Your task to perform on an android device: Open calendar and show me the second week of next month Image 0: 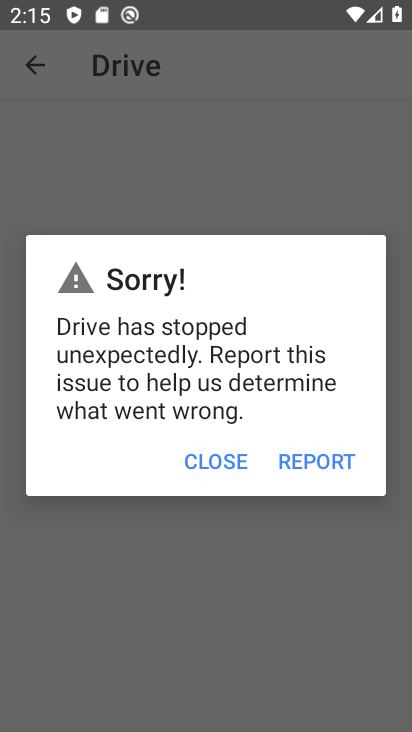
Step 0: press home button
Your task to perform on an android device: Open calendar and show me the second week of next month Image 1: 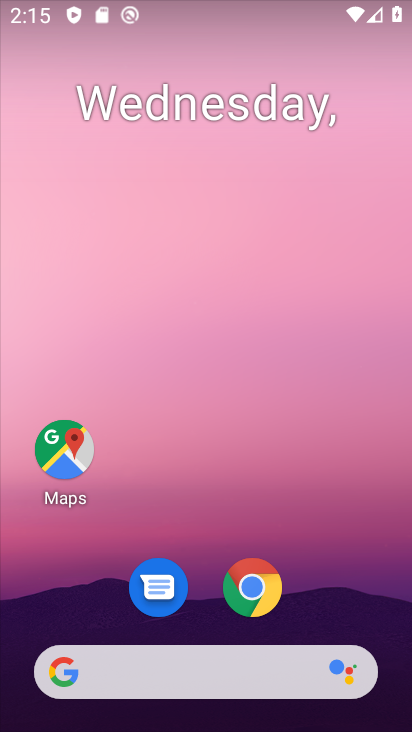
Step 1: drag from (345, 605) to (289, 165)
Your task to perform on an android device: Open calendar and show me the second week of next month Image 2: 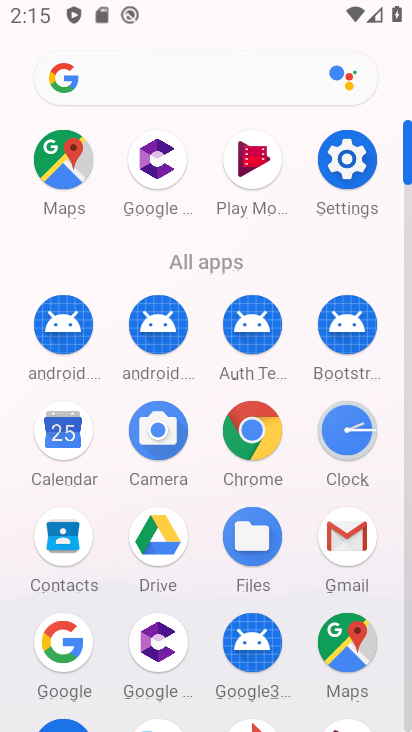
Step 2: click (62, 450)
Your task to perform on an android device: Open calendar and show me the second week of next month Image 3: 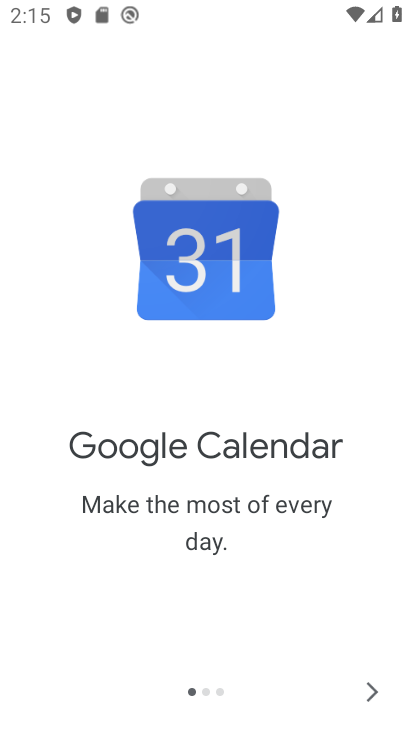
Step 3: click (373, 682)
Your task to perform on an android device: Open calendar and show me the second week of next month Image 4: 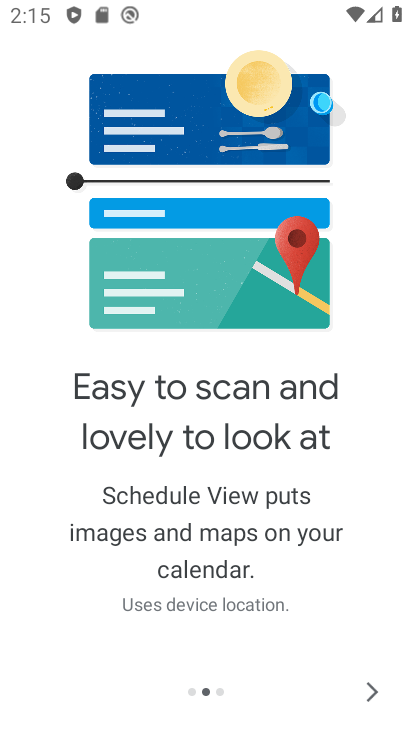
Step 4: click (373, 682)
Your task to perform on an android device: Open calendar and show me the second week of next month Image 5: 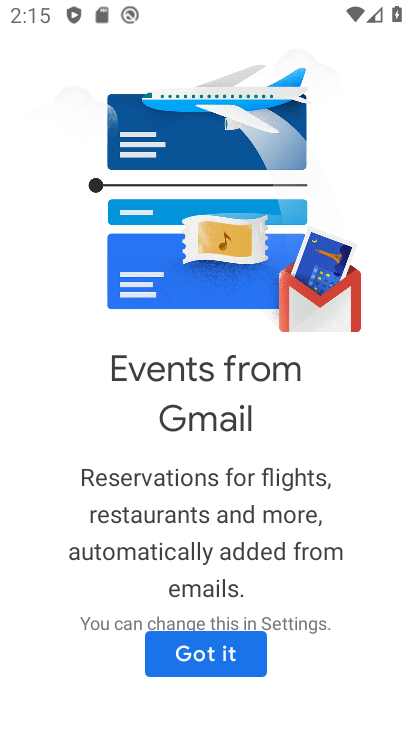
Step 5: click (223, 658)
Your task to perform on an android device: Open calendar and show me the second week of next month Image 6: 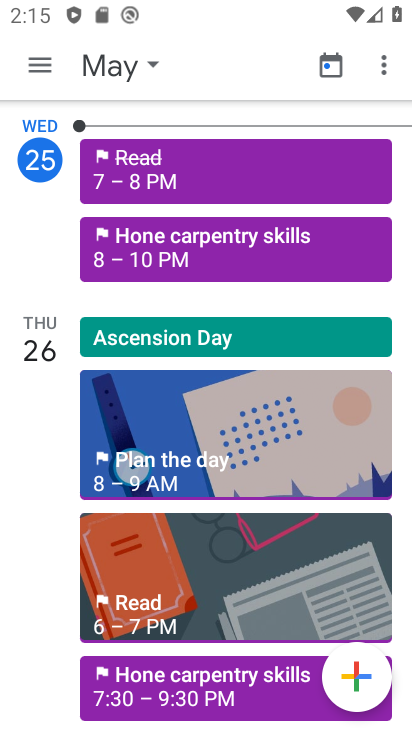
Step 6: click (112, 71)
Your task to perform on an android device: Open calendar and show me the second week of next month Image 7: 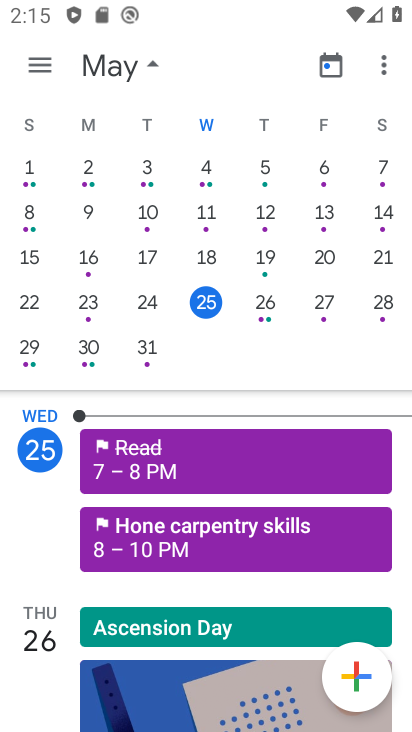
Step 7: drag from (390, 240) to (0, 163)
Your task to perform on an android device: Open calendar and show me the second week of next month Image 8: 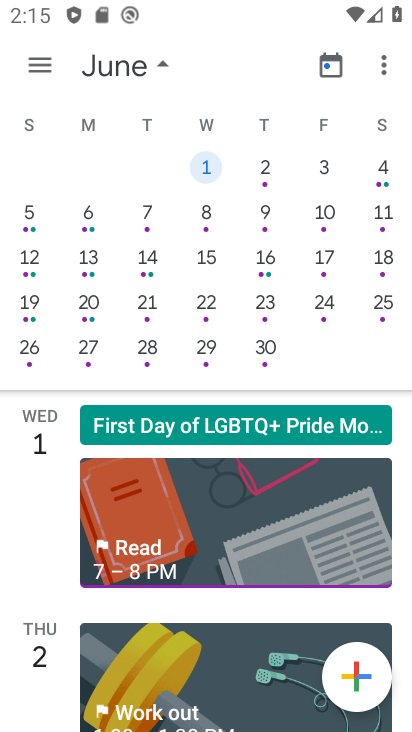
Step 8: click (203, 207)
Your task to perform on an android device: Open calendar and show me the second week of next month Image 9: 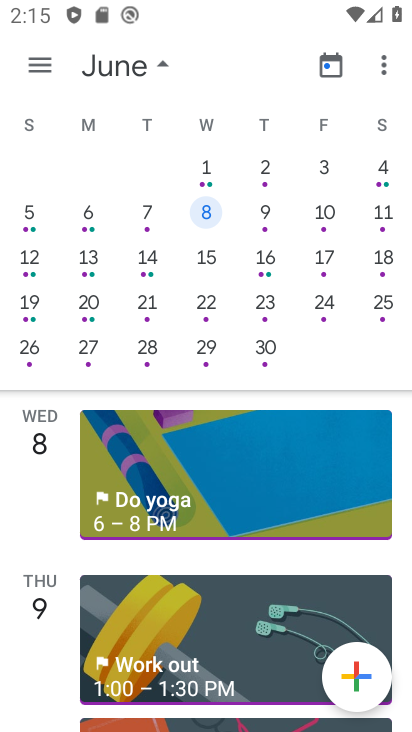
Step 9: click (145, 70)
Your task to perform on an android device: Open calendar and show me the second week of next month Image 10: 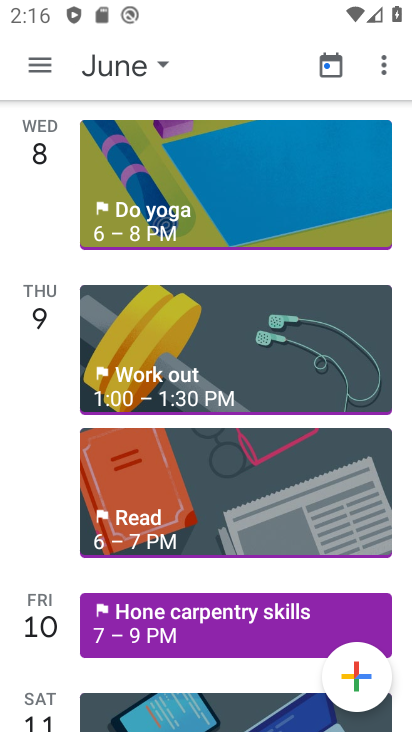
Step 10: task complete